Your task to perform on an android device: set the timer Image 0: 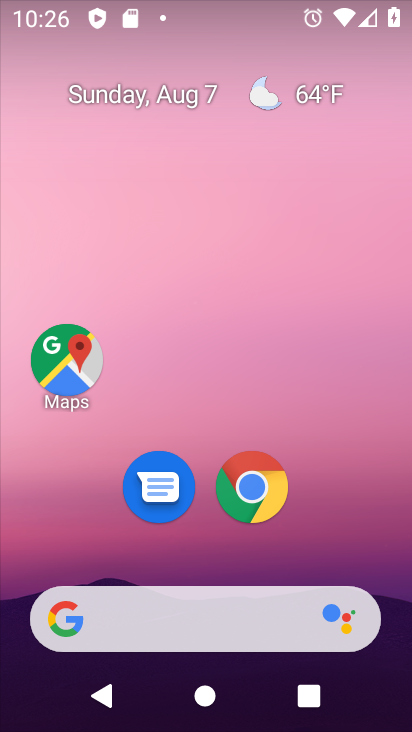
Step 0: drag from (406, 717) to (336, 199)
Your task to perform on an android device: set the timer Image 1: 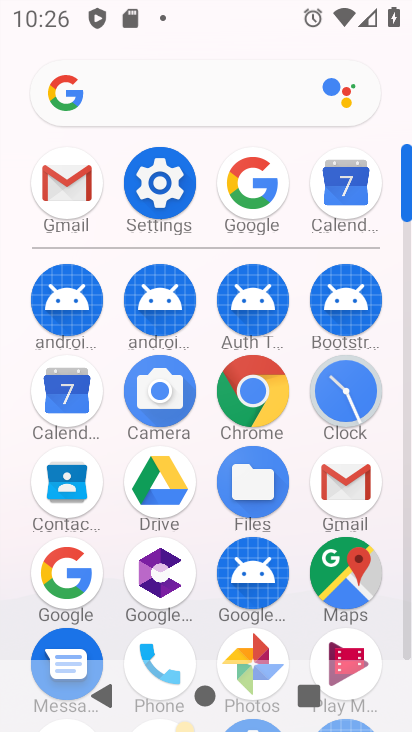
Step 1: click (337, 364)
Your task to perform on an android device: set the timer Image 2: 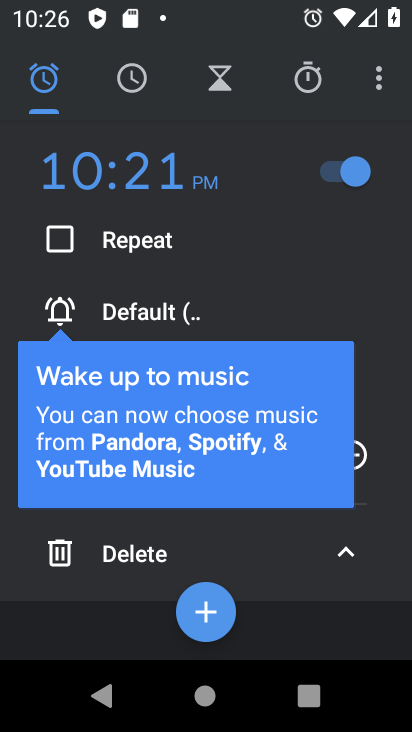
Step 2: click (378, 83)
Your task to perform on an android device: set the timer Image 3: 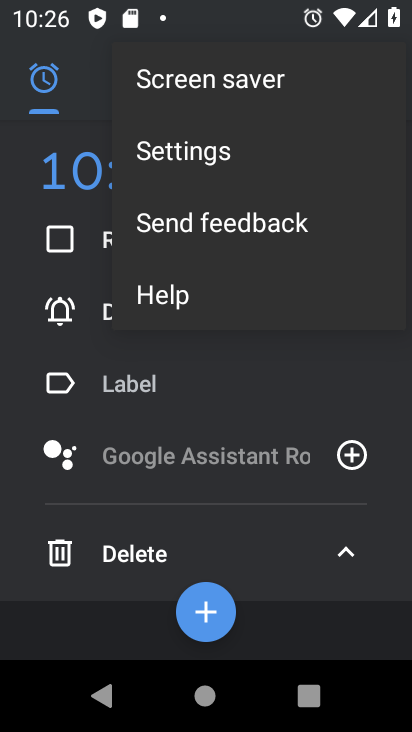
Step 3: click (314, 386)
Your task to perform on an android device: set the timer Image 4: 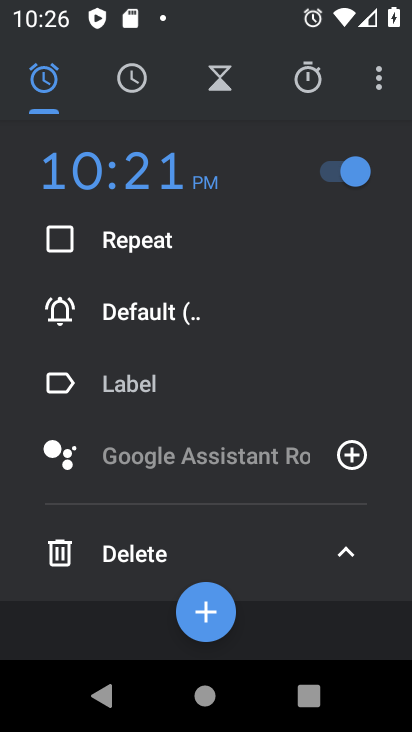
Step 4: click (305, 79)
Your task to perform on an android device: set the timer Image 5: 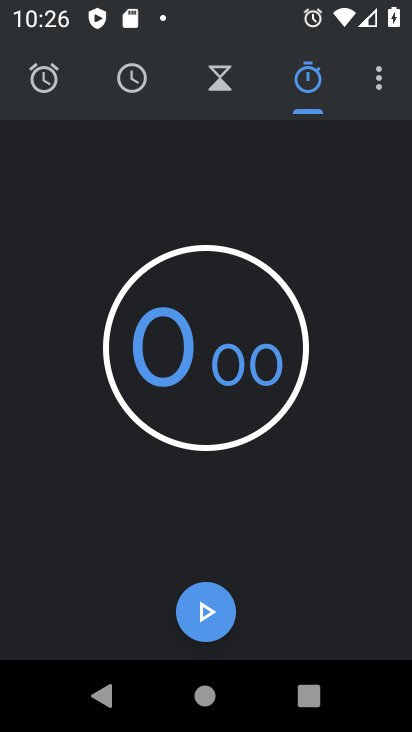
Step 5: click (222, 78)
Your task to perform on an android device: set the timer Image 6: 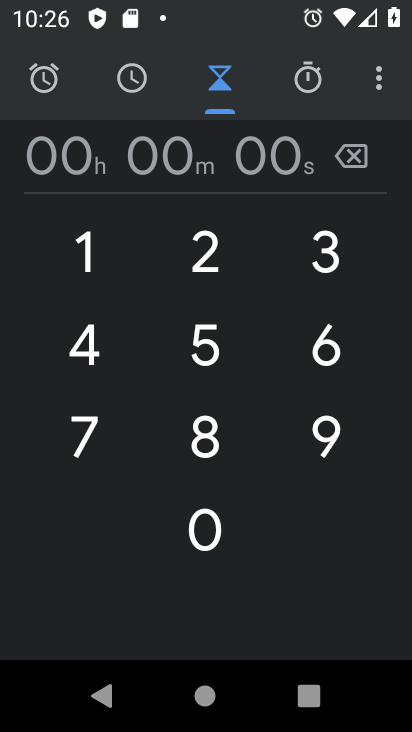
Step 6: click (211, 349)
Your task to perform on an android device: set the timer Image 7: 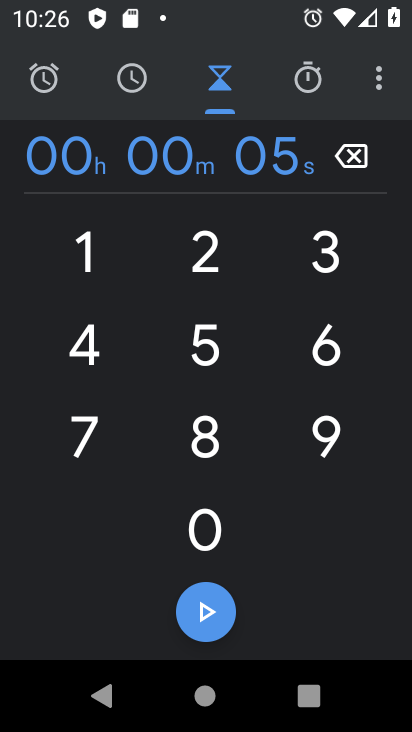
Step 7: click (211, 349)
Your task to perform on an android device: set the timer Image 8: 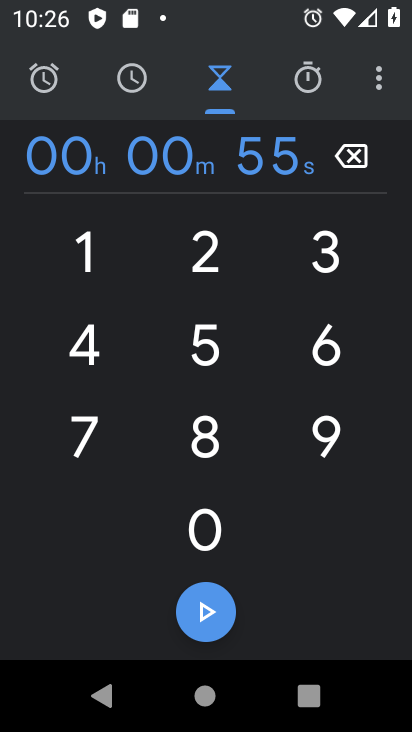
Step 8: click (203, 614)
Your task to perform on an android device: set the timer Image 9: 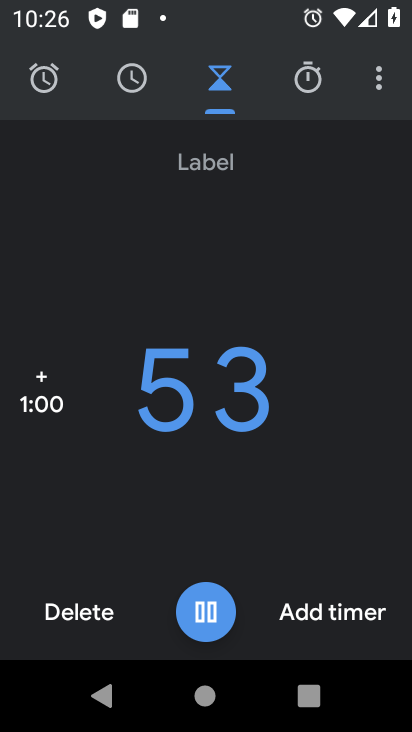
Step 9: task complete